Your task to perform on an android device: Open calendar and show me the second week of next month Image 0: 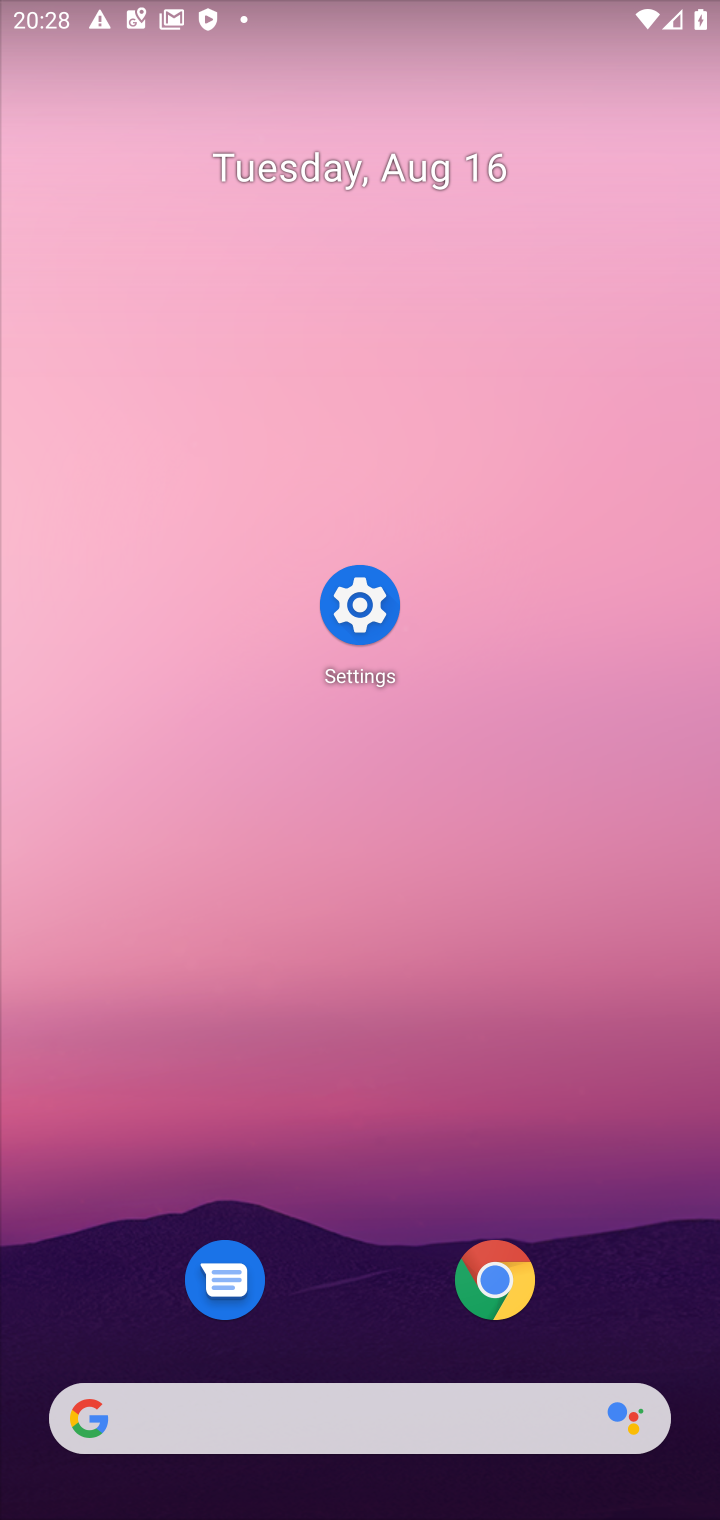
Step 0: drag from (290, 999) to (402, 326)
Your task to perform on an android device: Open calendar and show me the second week of next month Image 1: 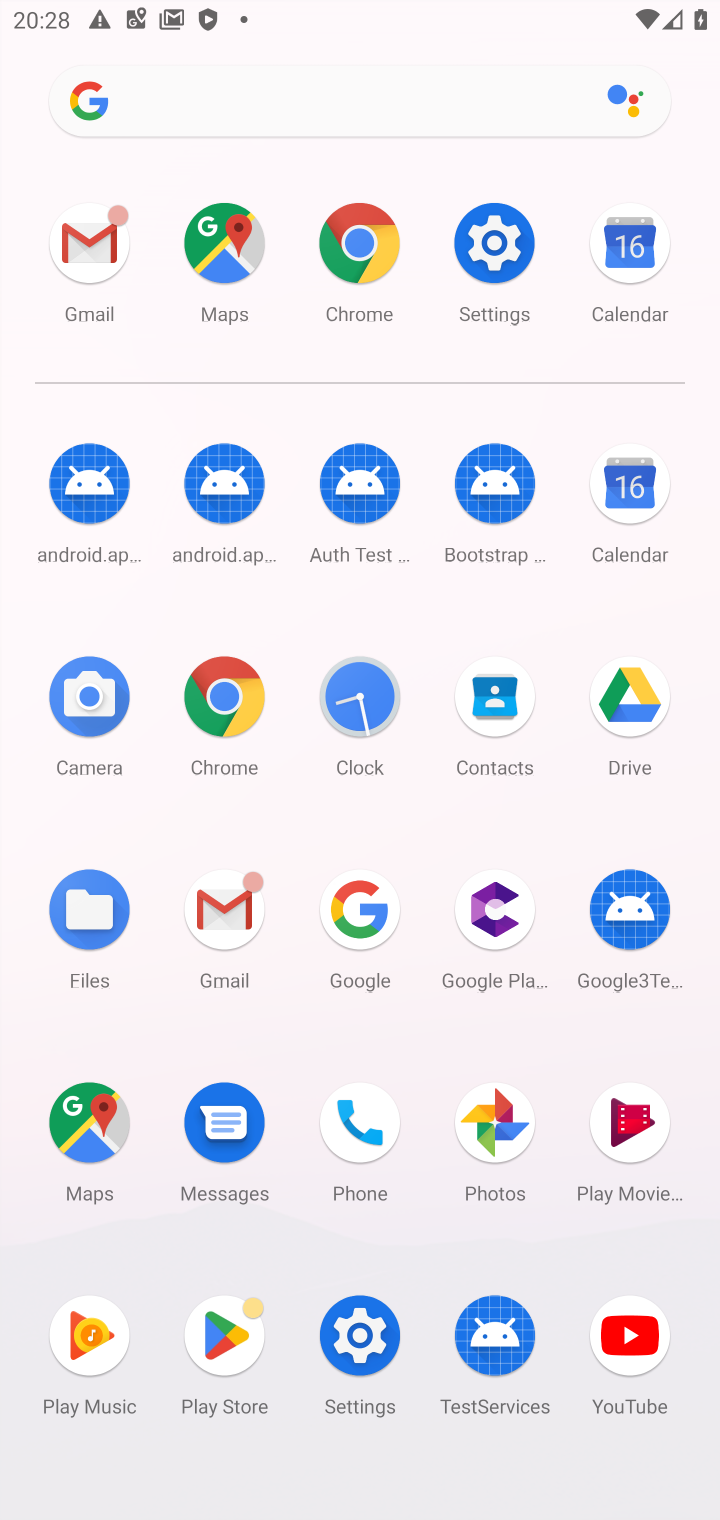
Step 1: click (624, 491)
Your task to perform on an android device: Open calendar and show me the second week of next month Image 2: 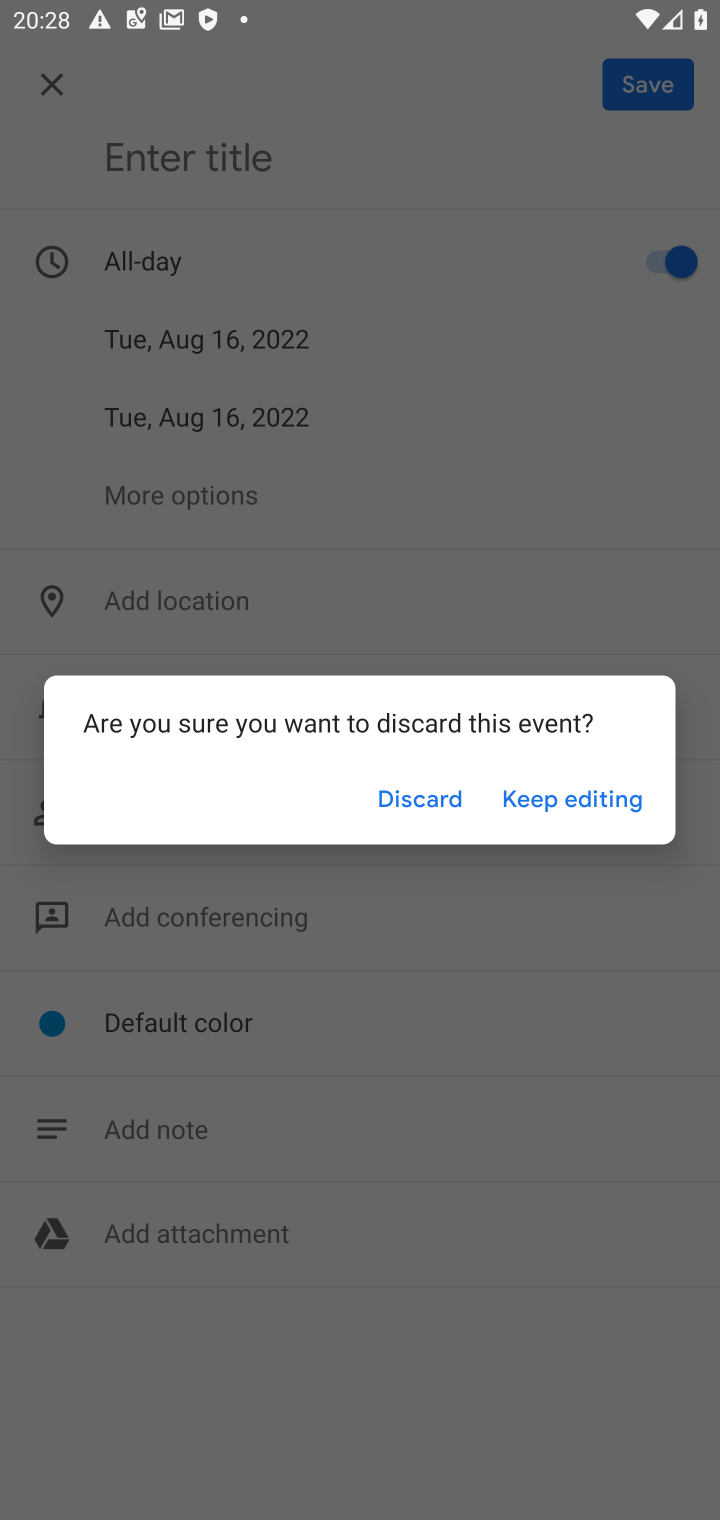
Step 2: click (435, 821)
Your task to perform on an android device: Open calendar and show me the second week of next month Image 3: 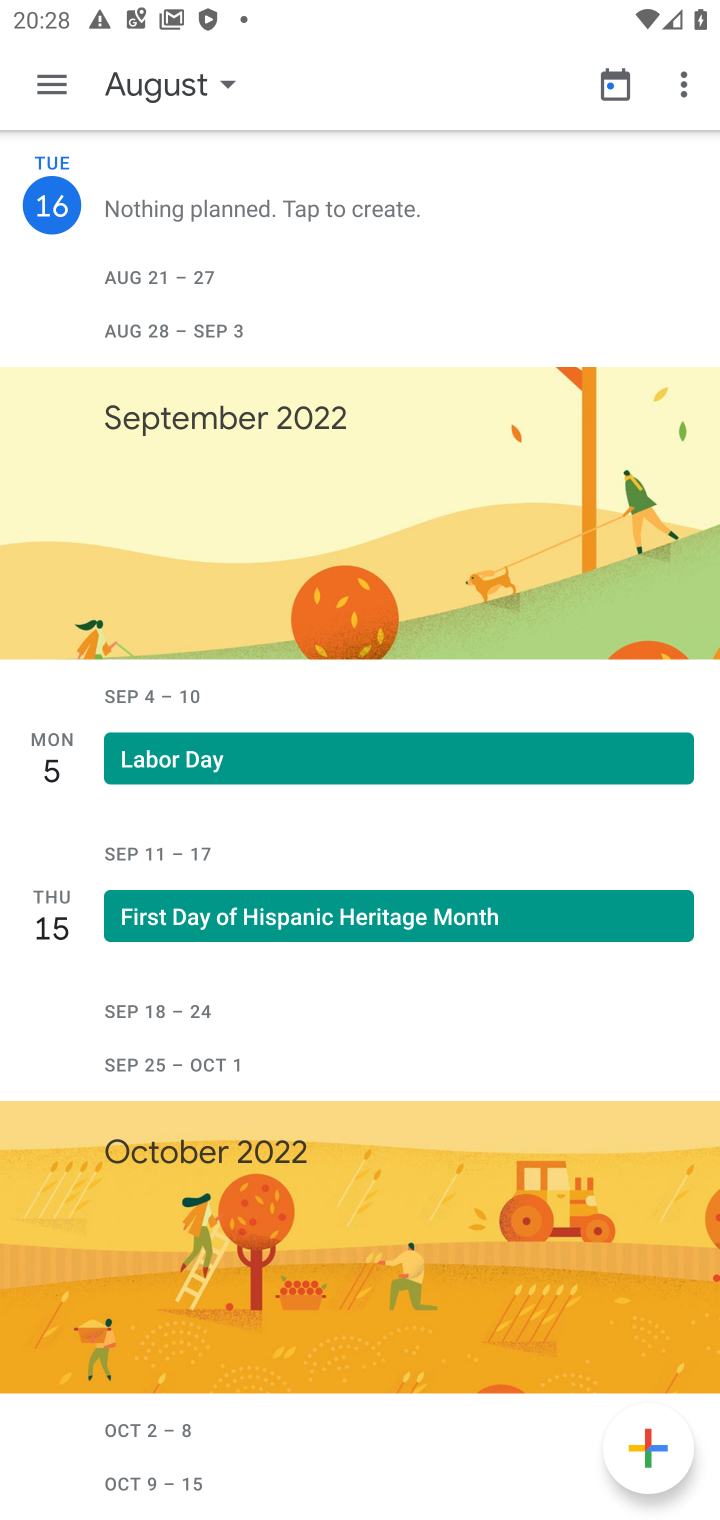
Step 3: click (41, 54)
Your task to perform on an android device: Open calendar and show me the second week of next month Image 4: 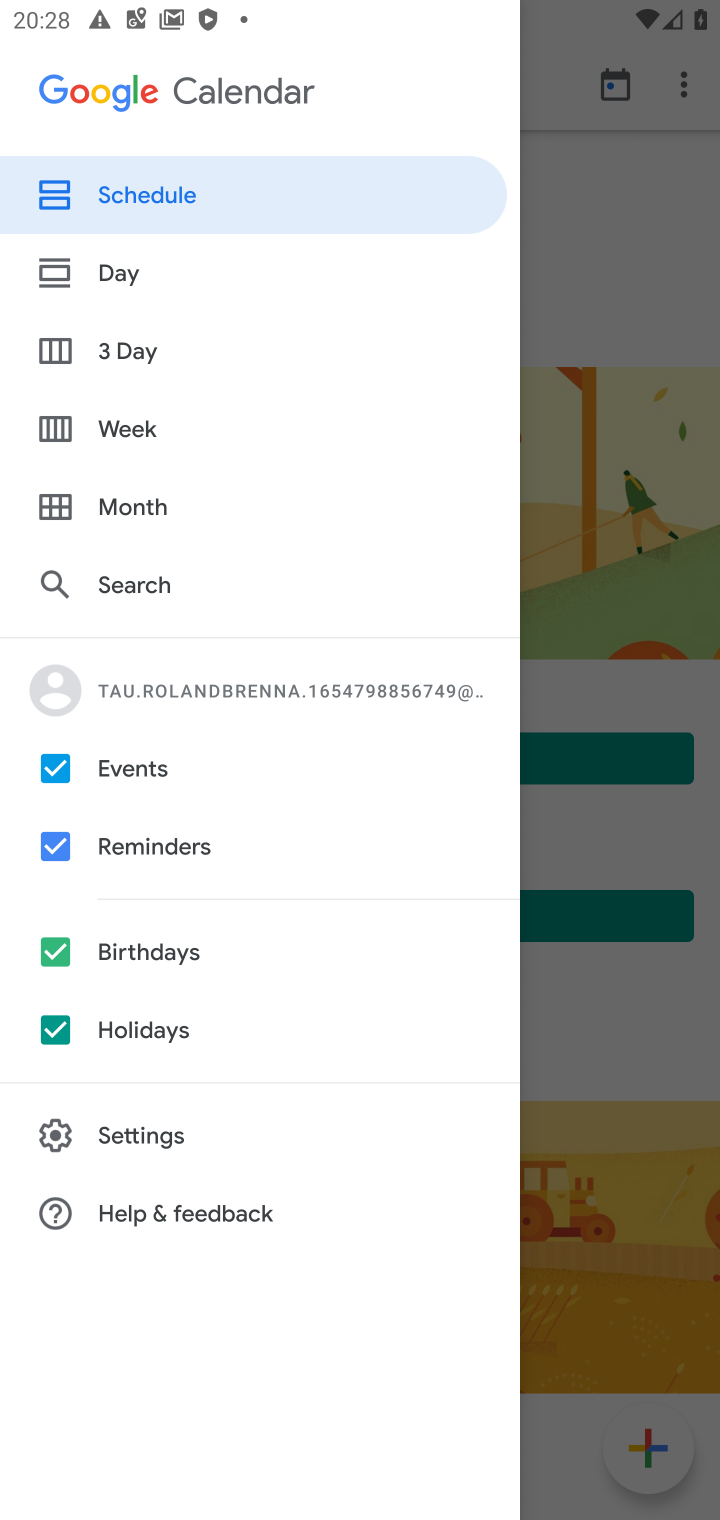
Step 4: click (117, 423)
Your task to perform on an android device: Open calendar and show me the second week of next month Image 5: 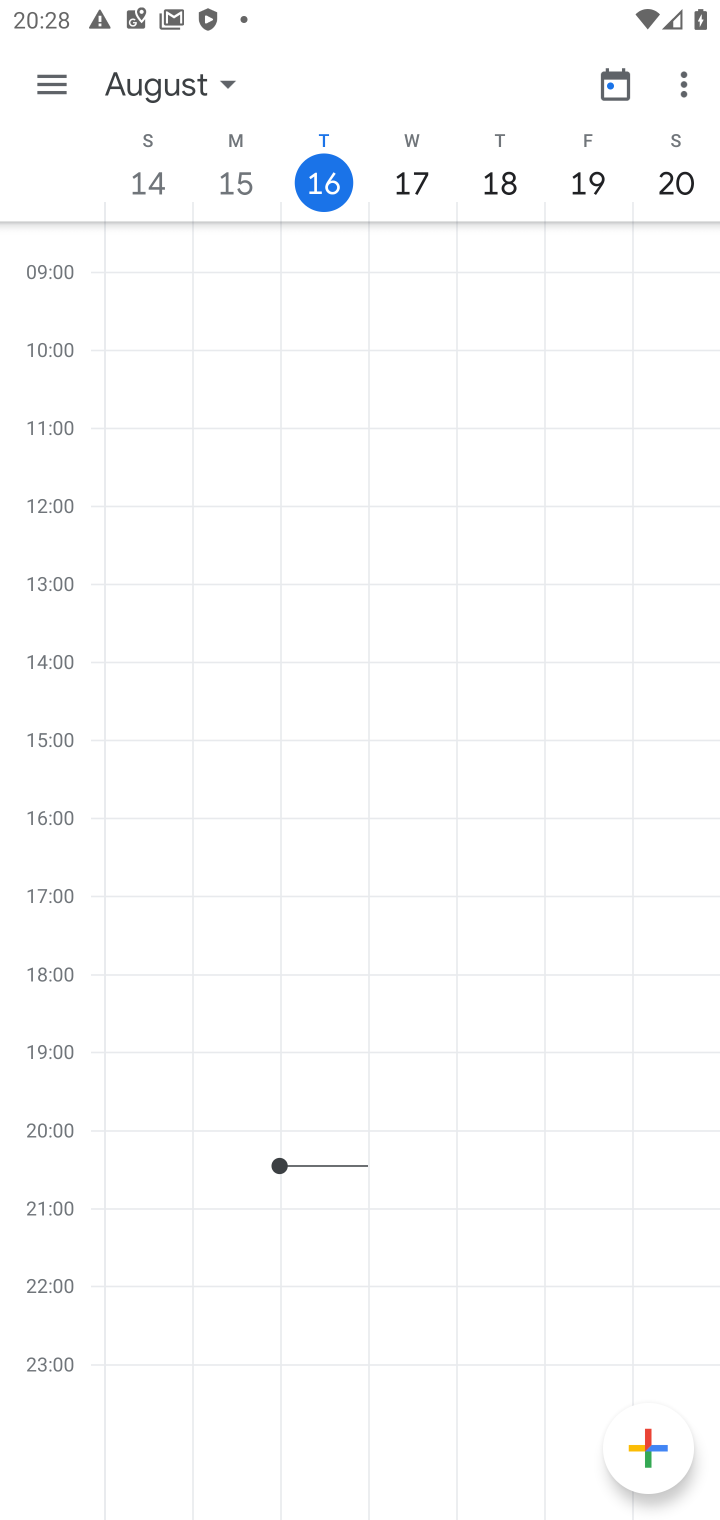
Step 5: click (157, 75)
Your task to perform on an android device: Open calendar and show me the second week of next month Image 6: 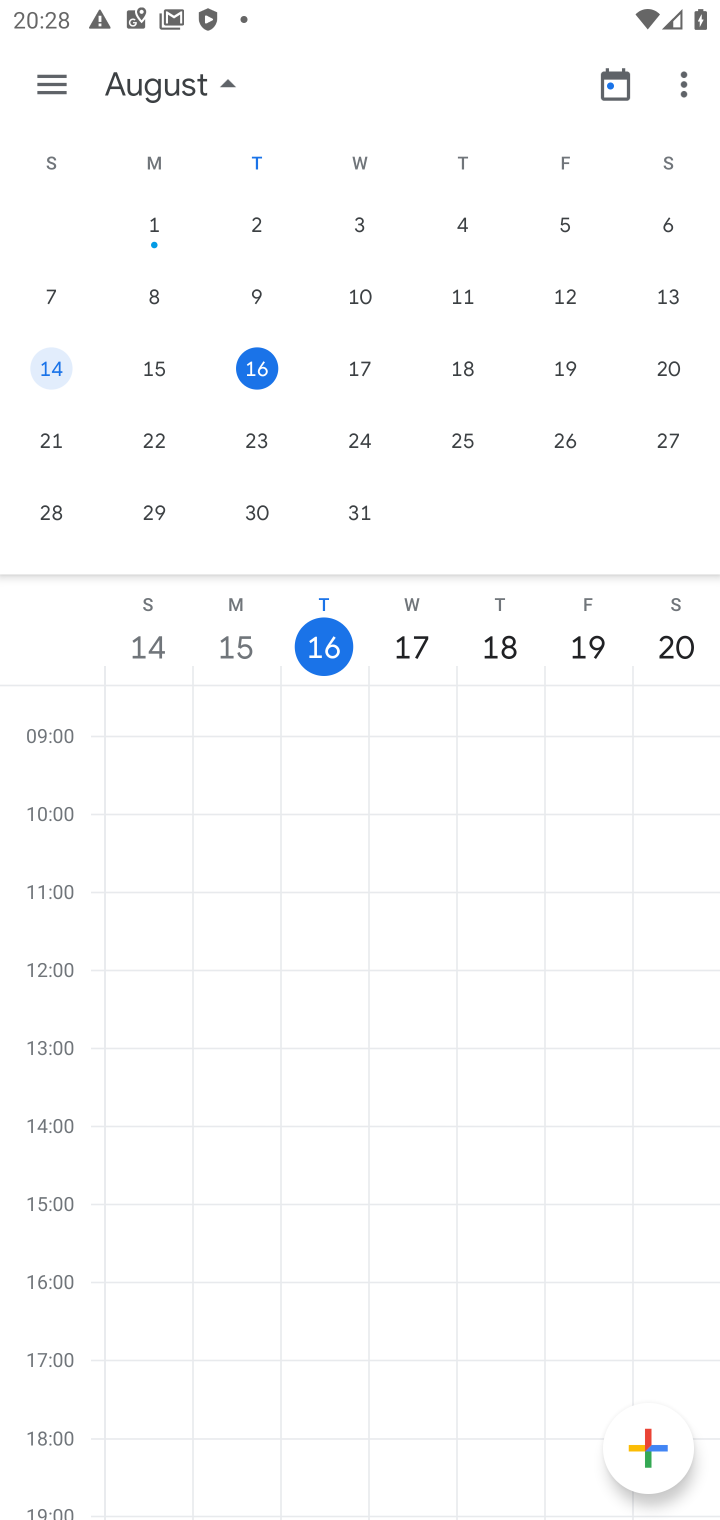
Step 6: drag from (581, 308) to (13, 292)
Your task to perform on an android device: Open calendar and show me the second week of next month Image 7: 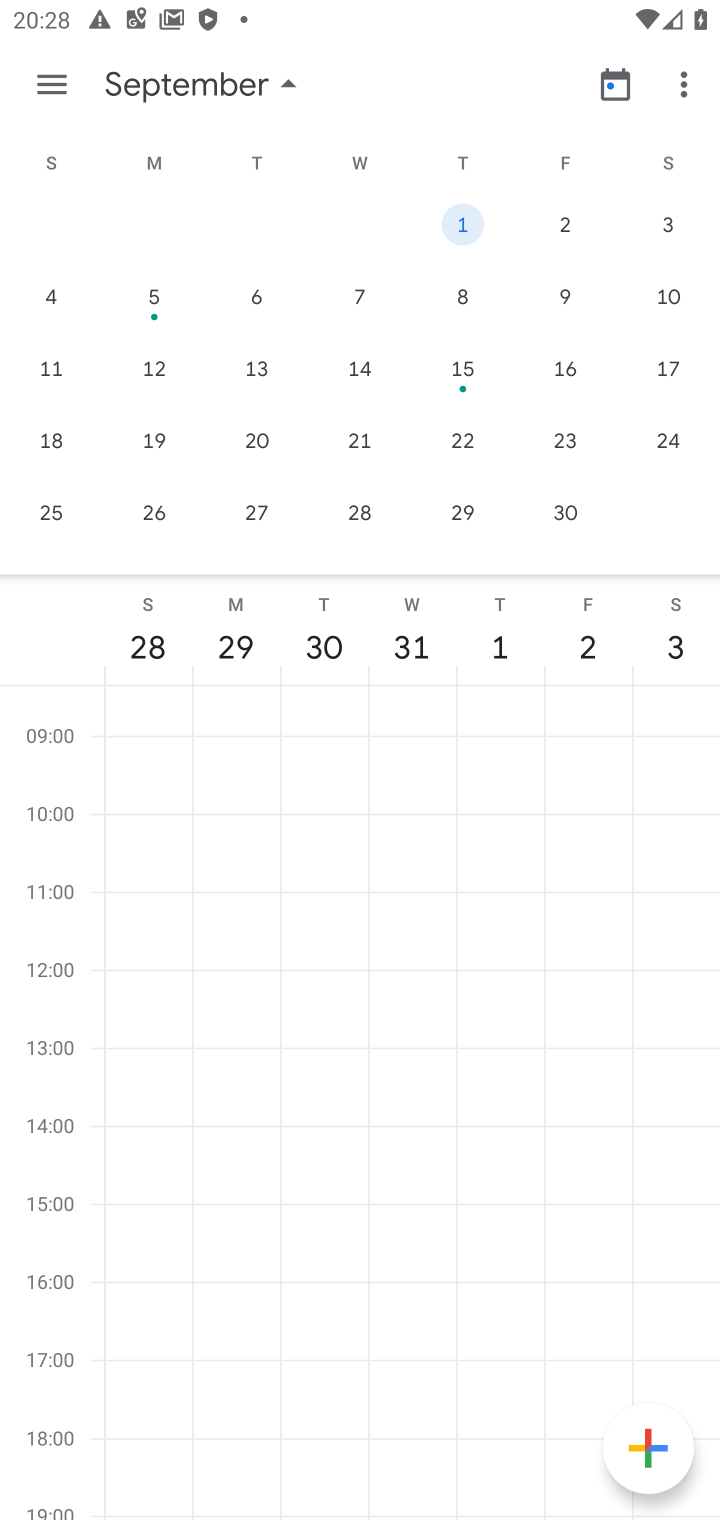
Step 7: click (347, 359)
Your task to perform on an android device: Open calendar and show me the second week of next month Image 8: 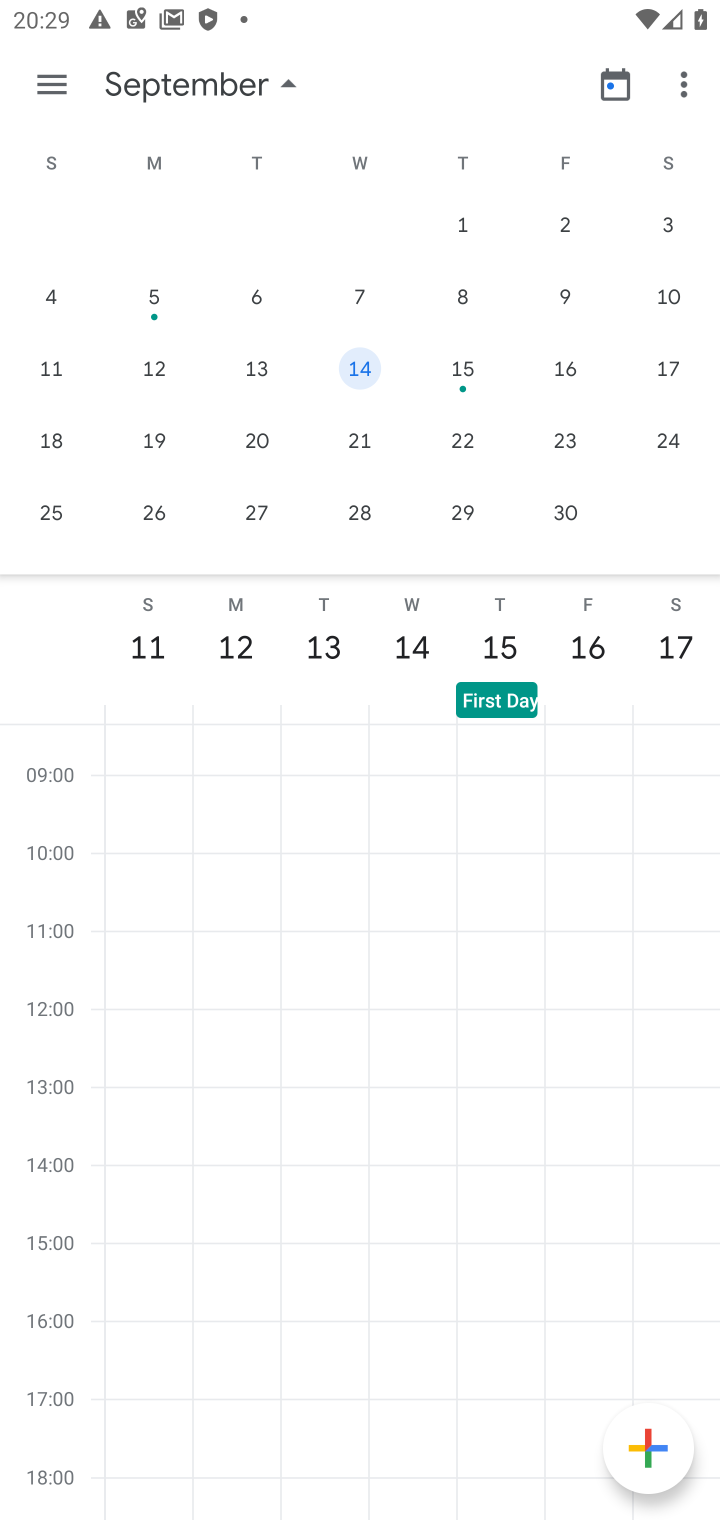
Step 8: click (357, 364)
Your task to perform on an android device: Open calendar and show me the second week of next month Image 9: 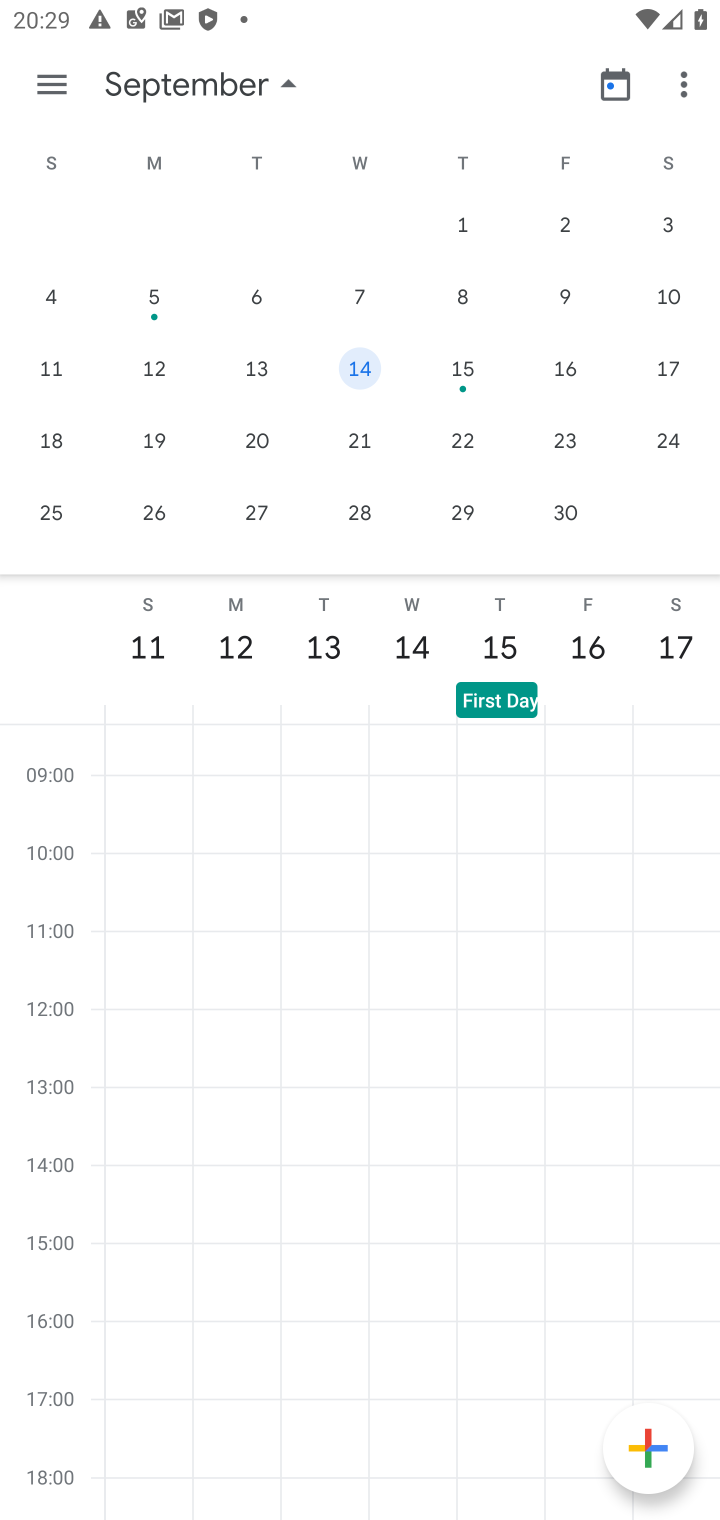
Step 9: task complete